Your task to perform on an android device: What's the weather going to be this weekend? Image 0: 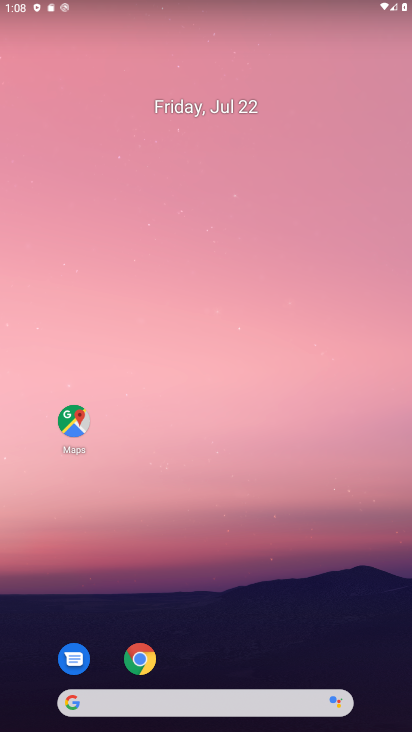
Step 0: drag from (266, 668) to (249, 312)
Your task to perform on an android device: What's the weather going to be this weekend? Image 1: 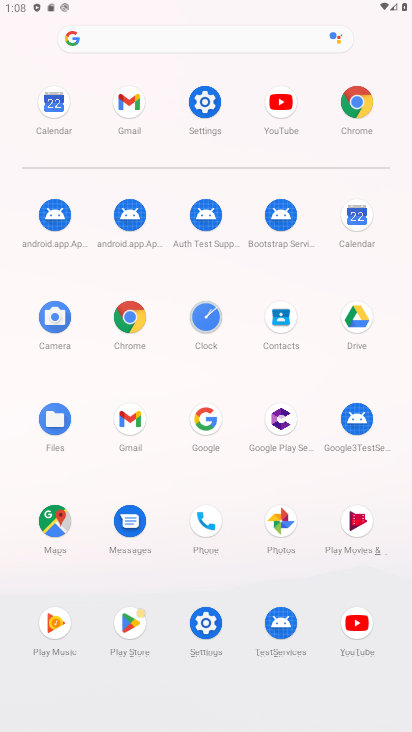
Step 1: click (56, 103)
Your task to perform on an android device: What's the weather going to be this weekend? Image 2: 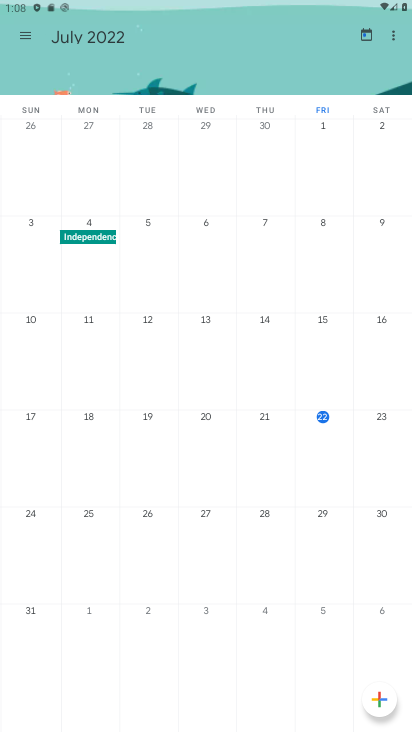
Step 2: task complete